Your task to perform on an android device: Play the last video I watched on Youtube Image 0: 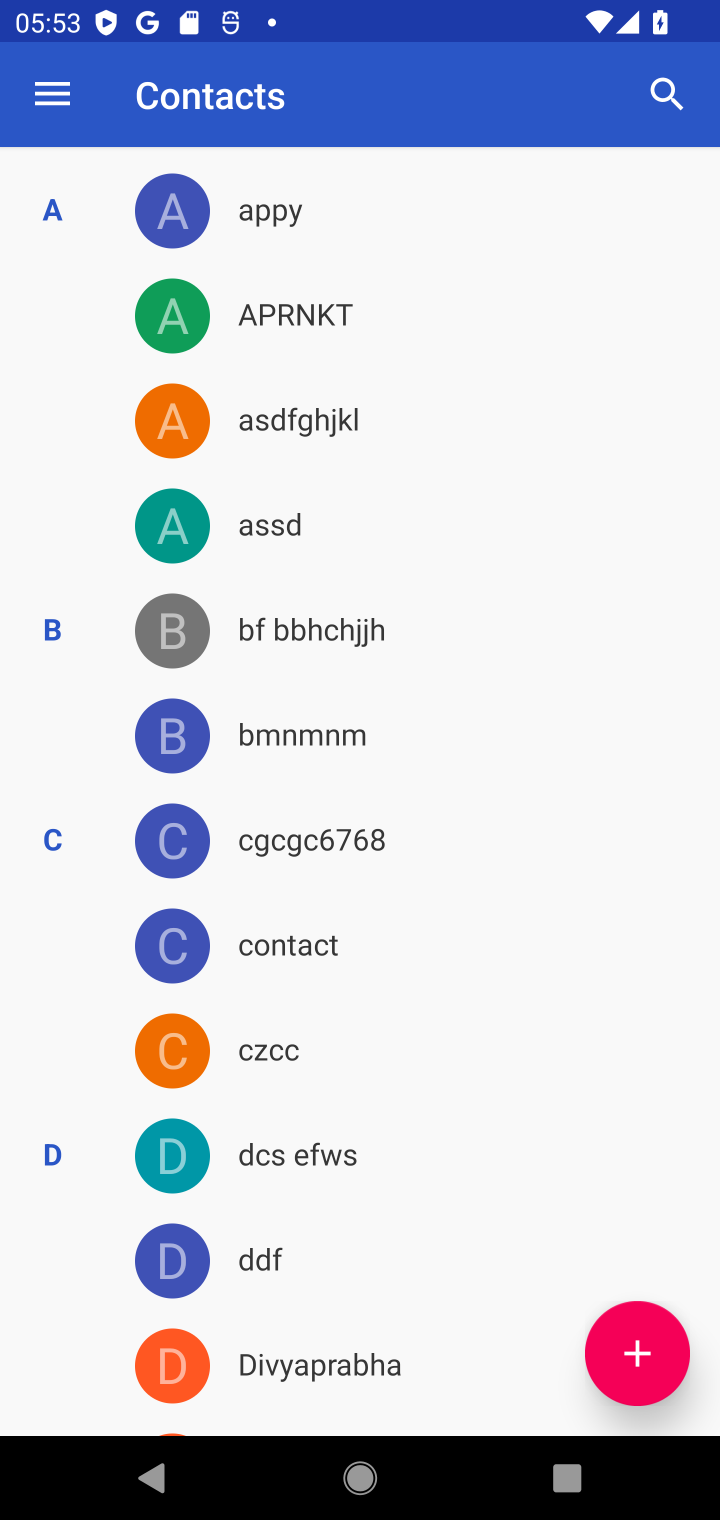
Step 0: press home button
Your task to perform on an android device: Play the last video I watched on Youtube Image 1: 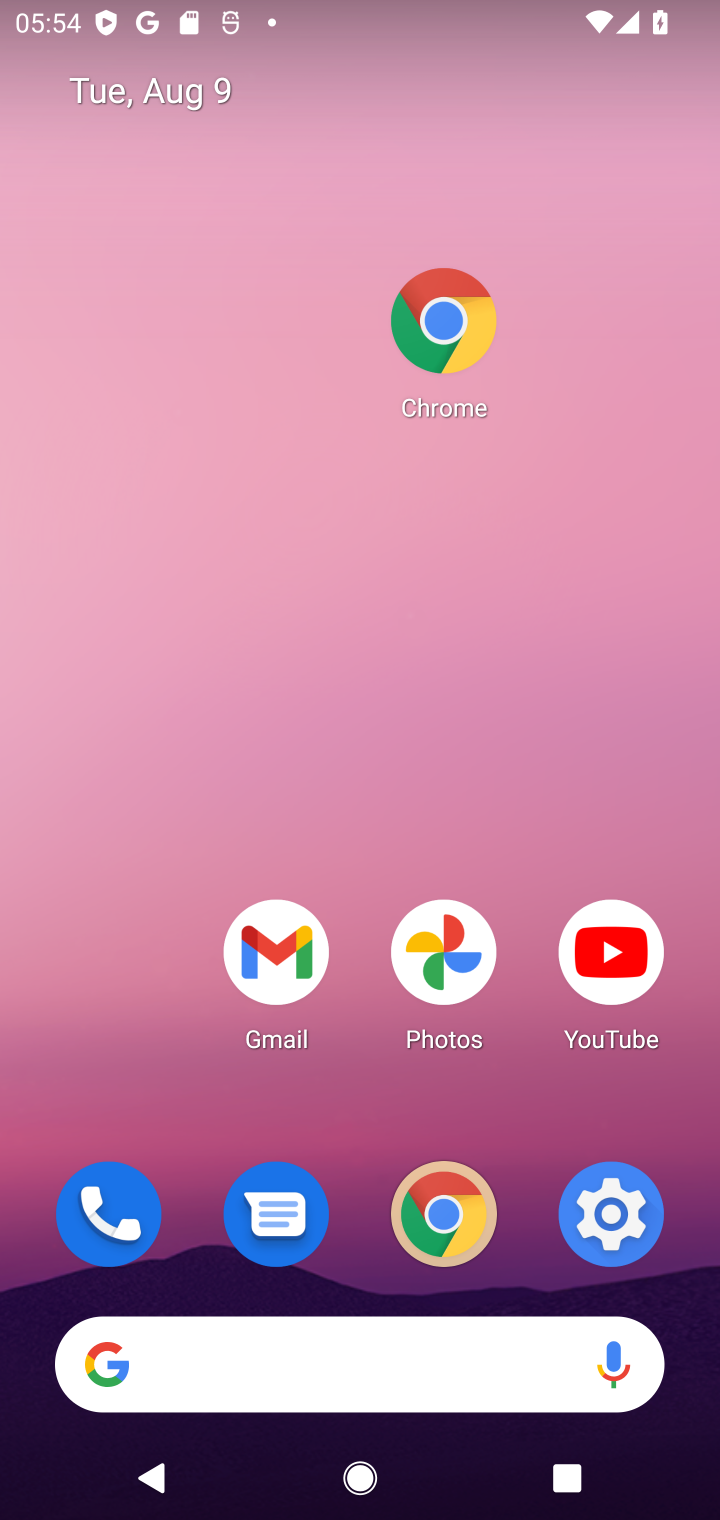
Step 1: click (605, 978)
Your task to perform on an android device: Play the last video I watched on Youtube Image 2: 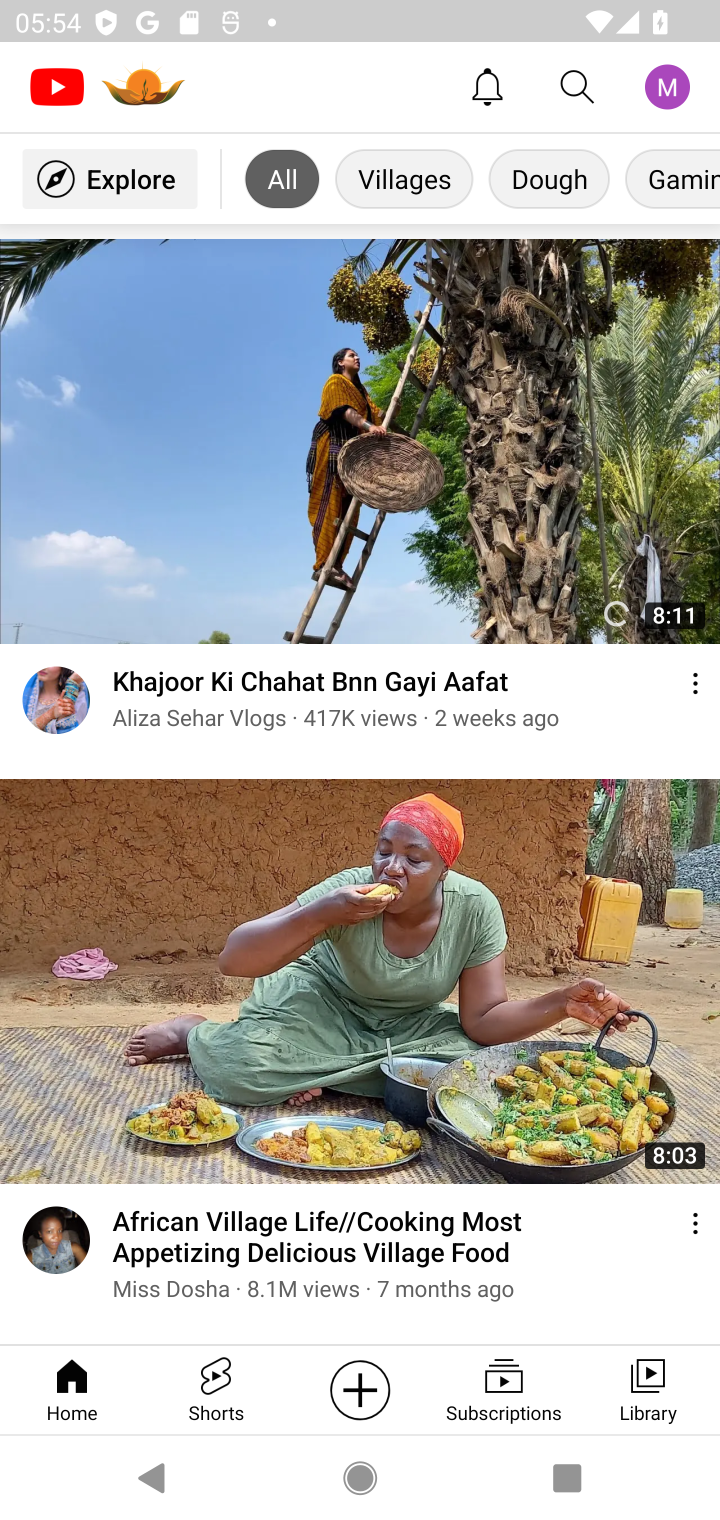
Step 2: click (649, 1381)
Your task to perform on an android device: Play the last video I watched on Youtube Image 3: 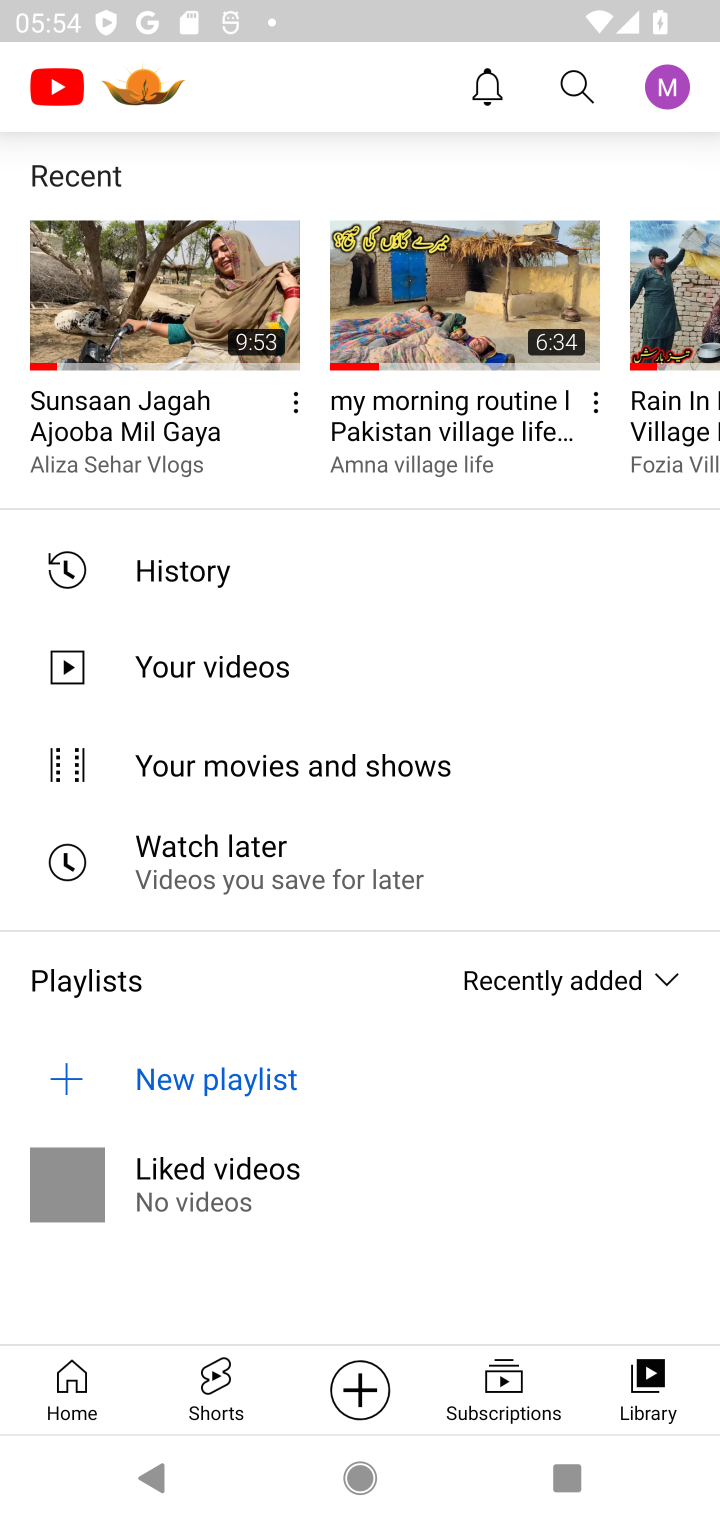
Step 3: click (168, 301)
Your task to perform on an android device: Play the last video I watched on Youtube Image 4: 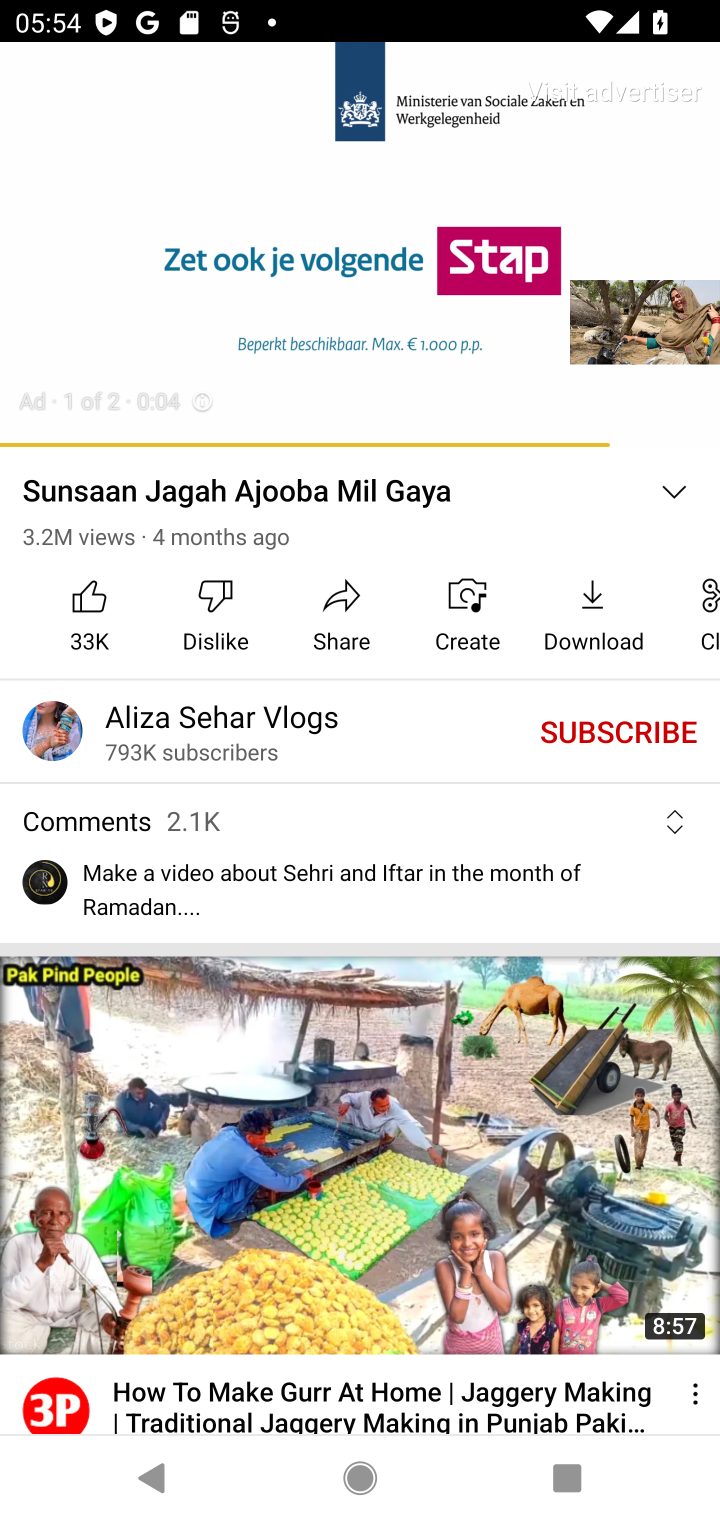
Step 4: task complete